Your task to perform on an android device: open device folders in google photos Image 0: 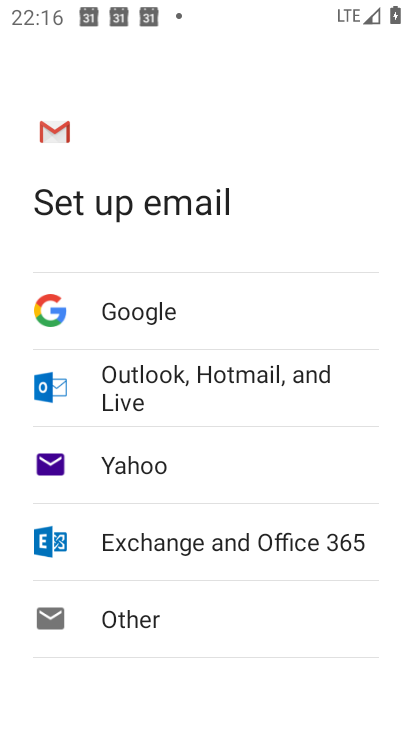
Step 0: press home button
Your task to perform on an android device: open device folders in google photos Image 1: 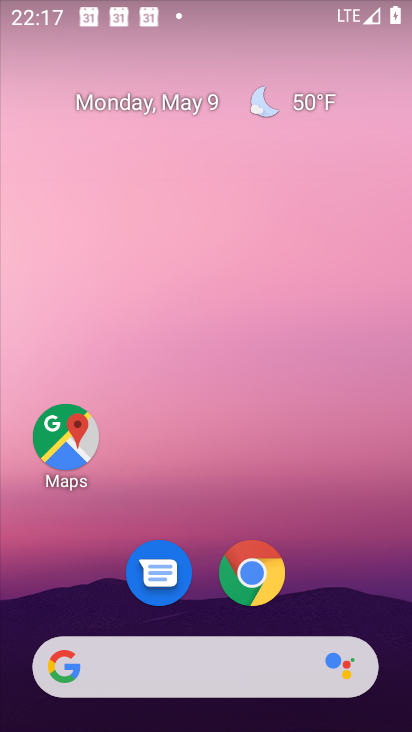
Step 1: drag from (313, 612) to (294, 64)
Your task to perform on an android device: open device folders in google photos Image 2: 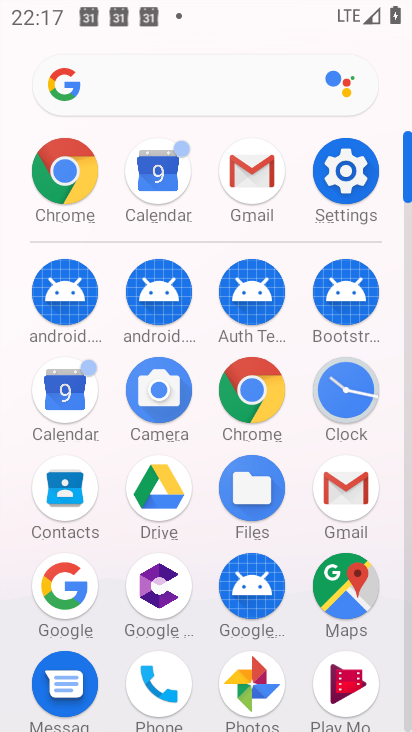
Step 2: click (258, 685)
Your task to perform on an android device: open device folders in google photos Image 3: 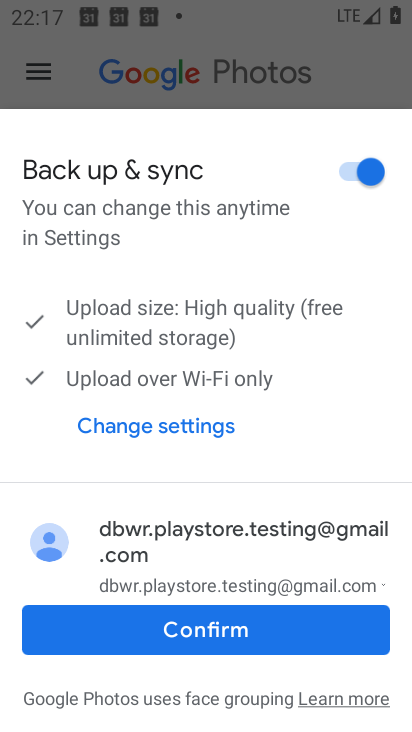
Step 3: click (245, 623)
Your task to perform on an android device: open device folders in google photos Image 4: 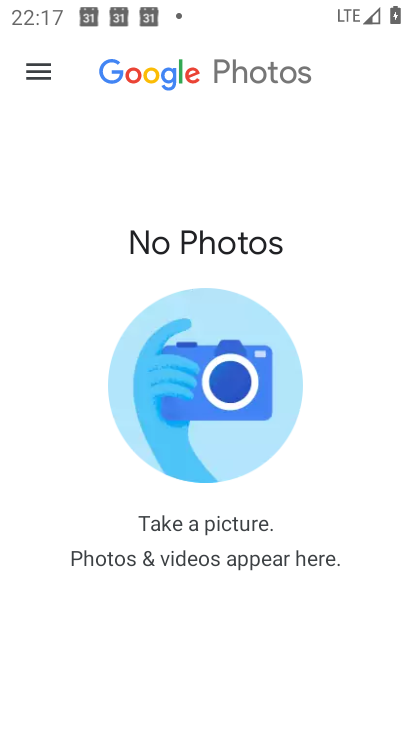
Step 4: click (34, 70)
Your task to perform on an android device: open device folders in google photos Image 5: 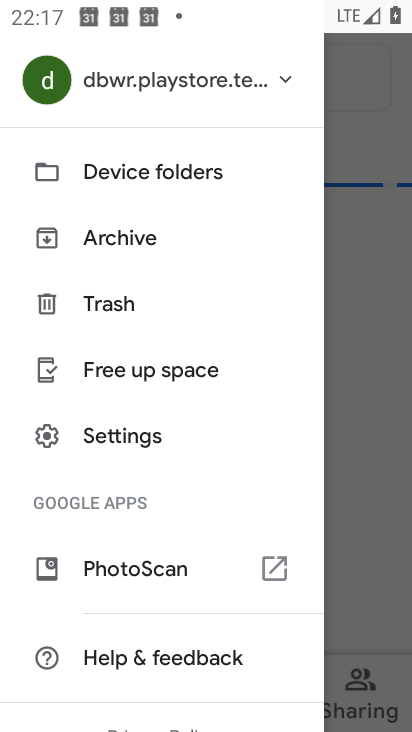
Step 5: click (179, 165)
Your task to perform on an android device: open device folders in google photos Image 6: 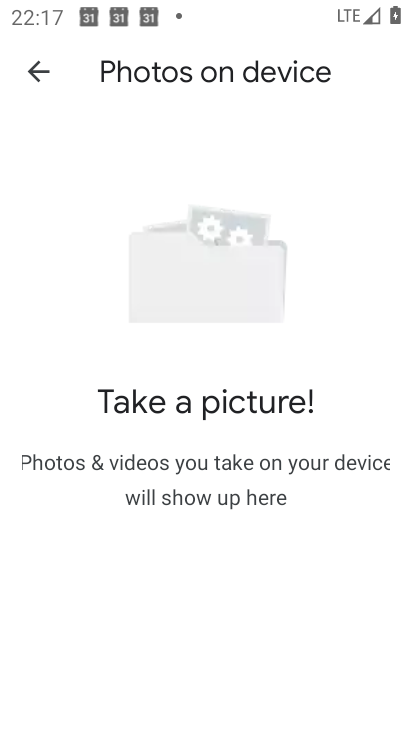
Step 6: task complete